Your task to perform on an android device: change timer sound Image 0: 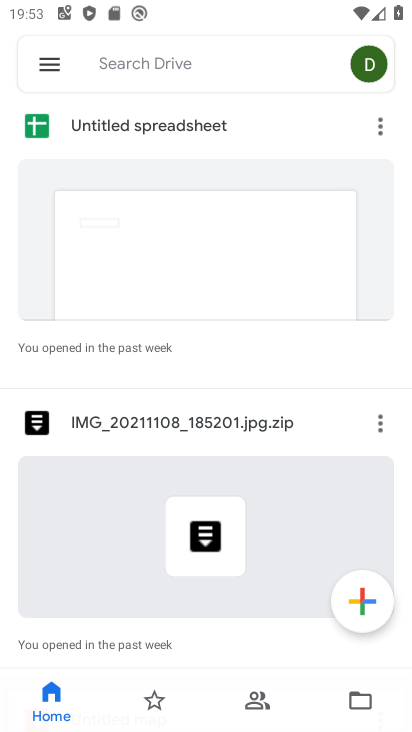
Step 0: press back button
Your task to perform on an android device: change timer sound Image 1: 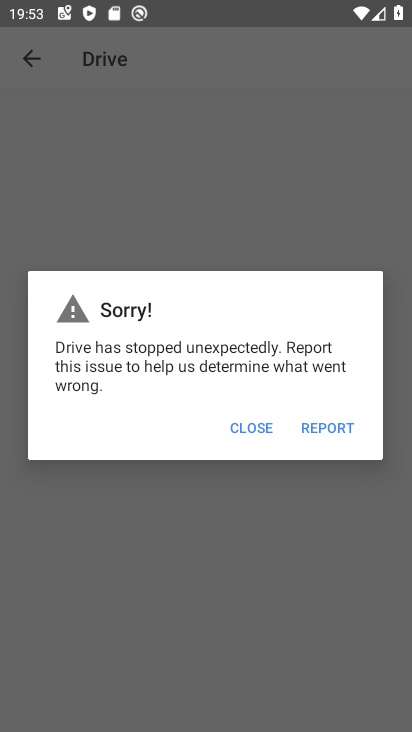
Step 1: press home button
Your task to perform on an android device: change timer sound Image 2: 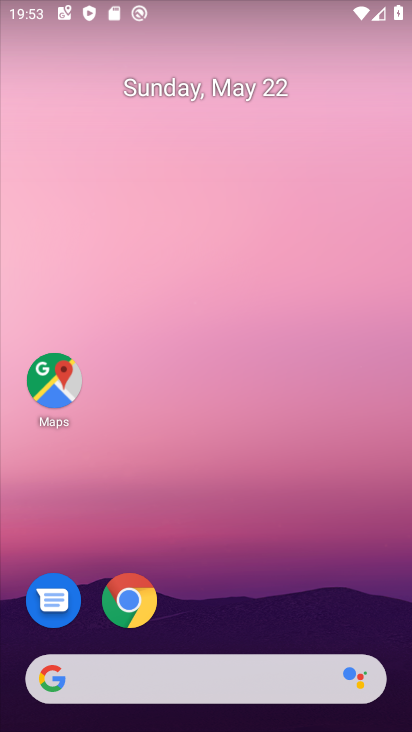
Step 2: drag from (243, 571) to (243, 22)
Your task to perform on an android device: change timer sound Image 3: 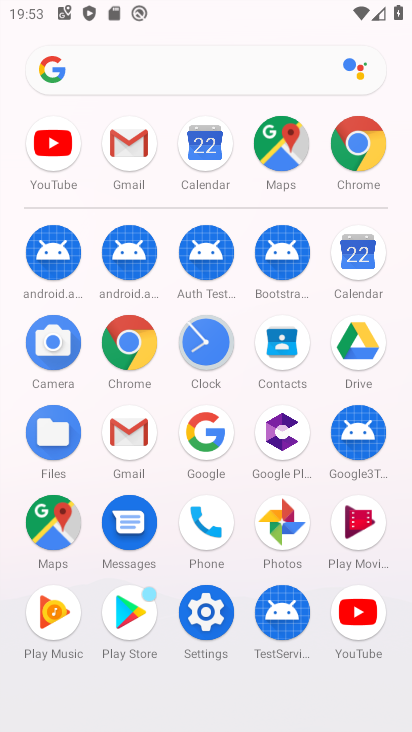
Step 3: click (6, 187)
Your task to perform on an android device: change timer sound Image 4: 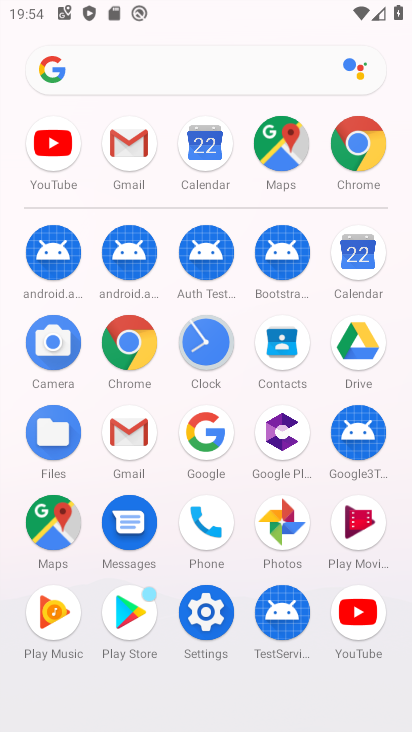
Step 4: click (204, 338)
Your task to perform on an android device: change timer sound Image 5: 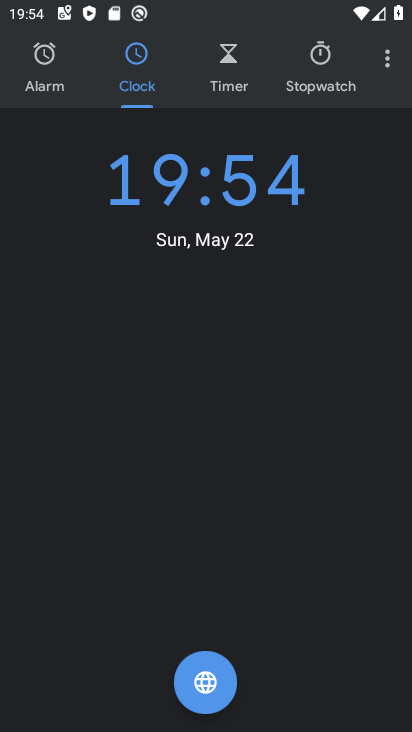
Step 5: drag from (388, 59) to (250, 115)
Your task to perform on an android device: change timer sound Image 6: 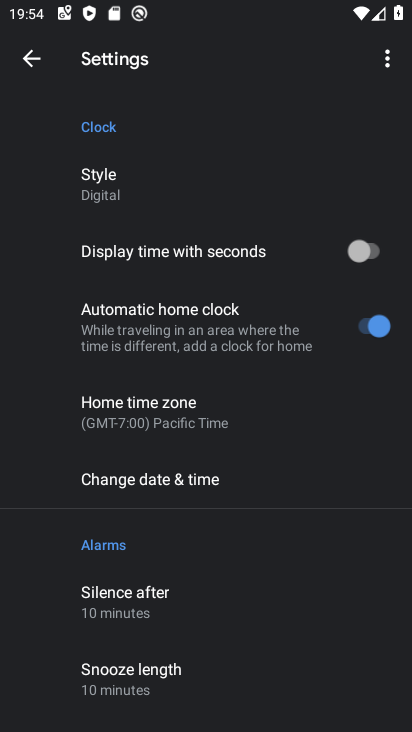
Step 6: drag from (207, 622) to (203, 194)
Your task to perform on an android device: change timer sound Image 7: 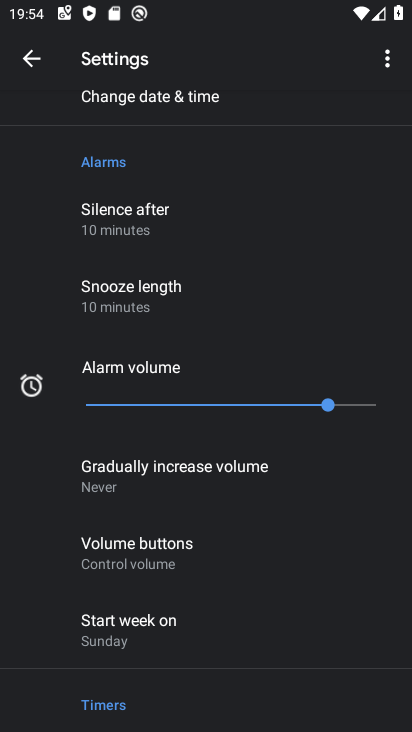
Step 7: drag from (201, 553) to (201, 220)
Your task to perform on an android device: change timer sound Image 8: 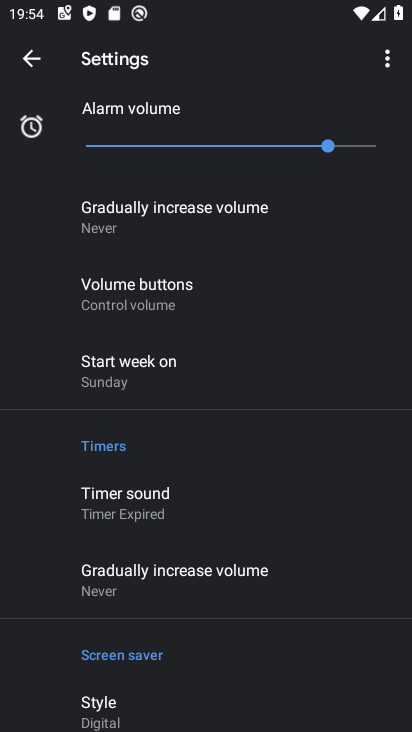
Step 8: click (177, 489)
Your task to perform on an android device: change timer sound Image 9: 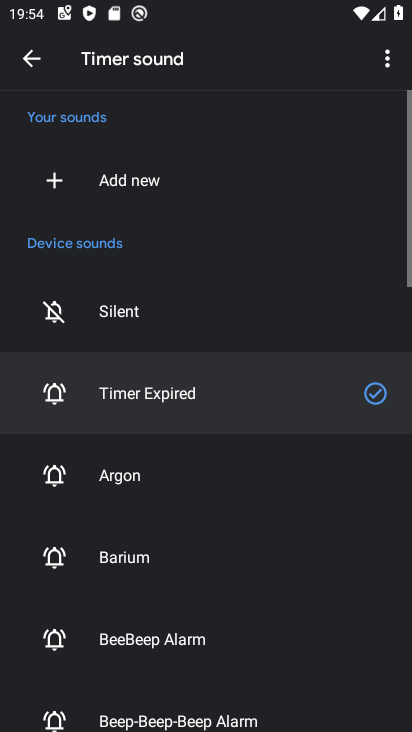
Step 9: click (137, 483)
Your task to perform on an android device: change timer sound Image 10: 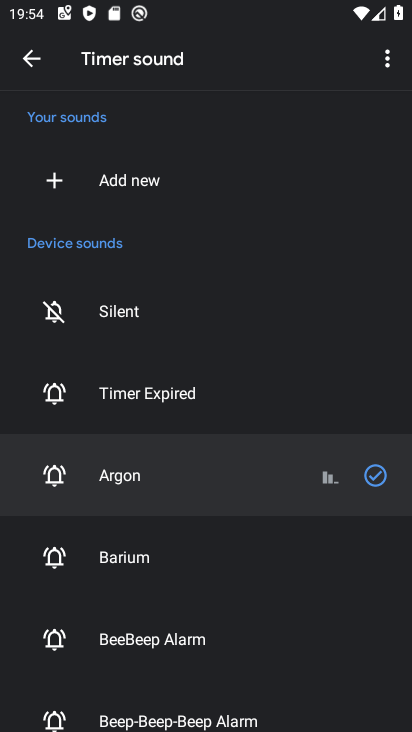
Step 10: task complete